Your task to perform on an android device: Open Google Image 0: 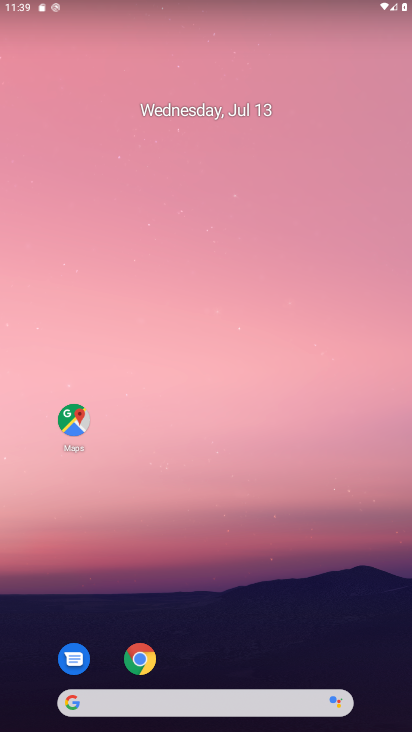
Step 0: drag from (250, 639) to (262, 42)
Your task to perform on an android device: Open Google Image 1: 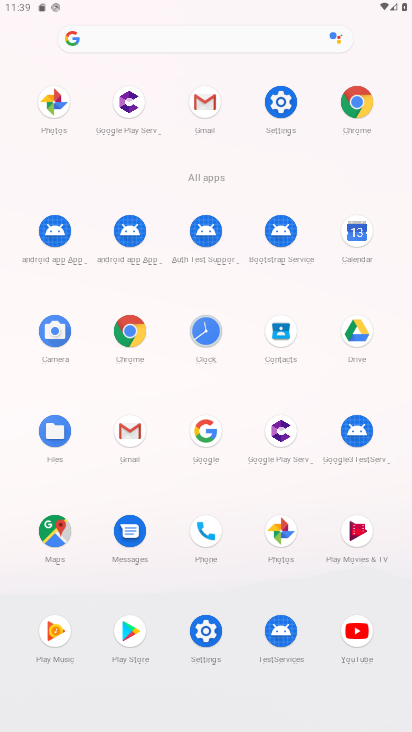
Step 1: click (206, 429)
Your task to perform on an android device: Open Google Image 2: 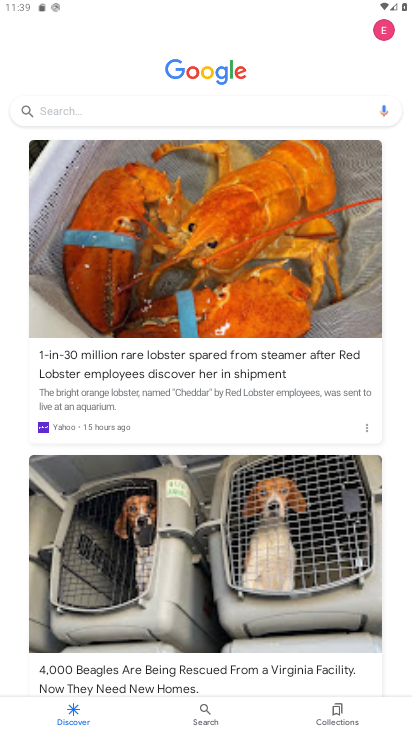
Step 2: task complete